Your task to perform on an android device: open sync settings in chrome Image 0: 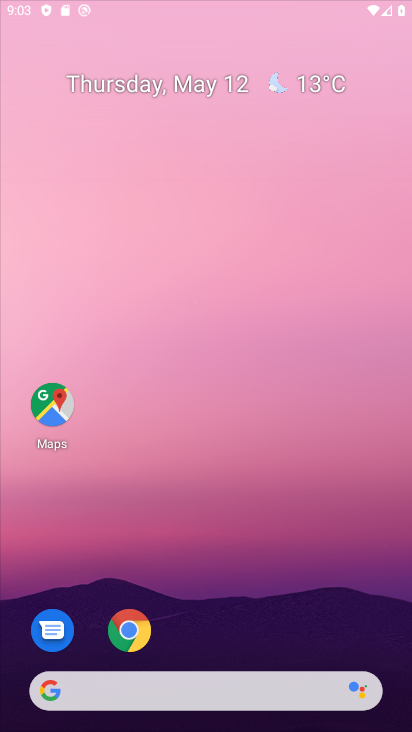
Step 0: drag from (278, 253) to (344, 79)
Your task to perform on an android device: open sync settings in chrome Image 1: 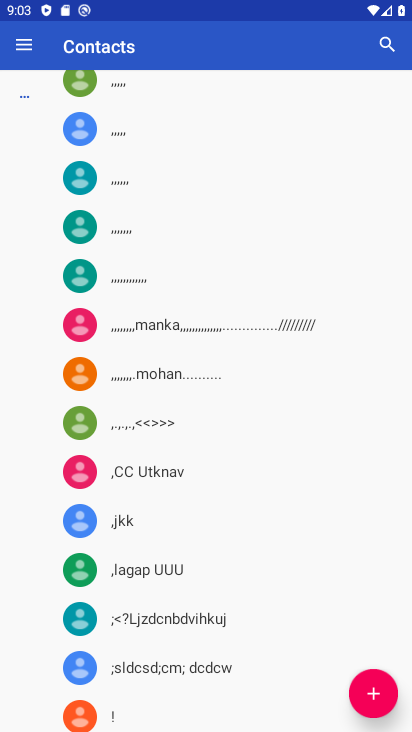
Step 1: press home button
Your task to perform on an android device: open sync settings in chrome Image 2: 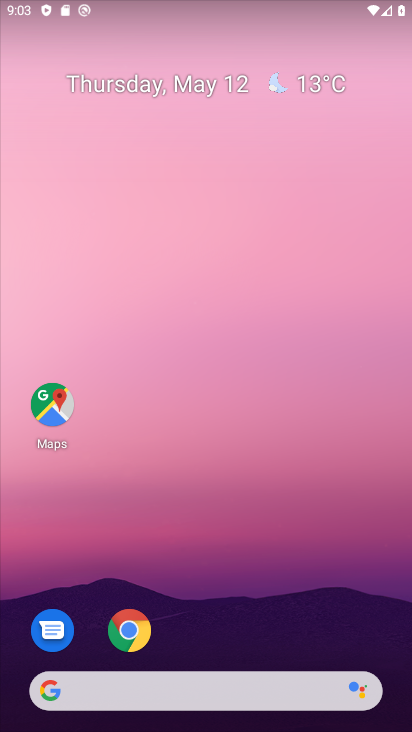
Step 2: click (121, 634)
Your task to perform on an android device: open sync settings in chrome Image 3: 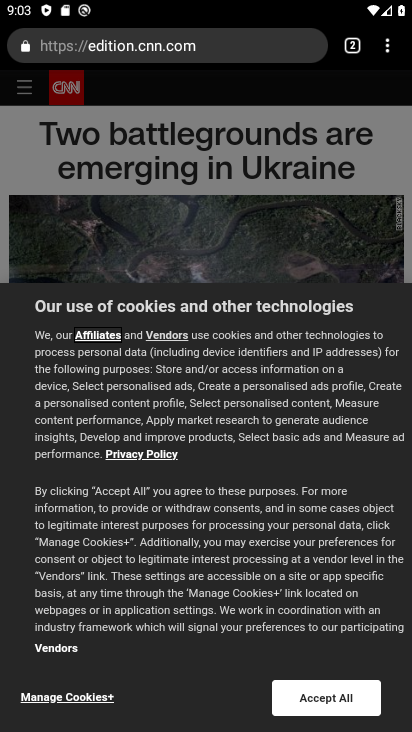
Step 3: click (390, 54)
Your task to perform on an android device: open sync settings in chrome Image 4: 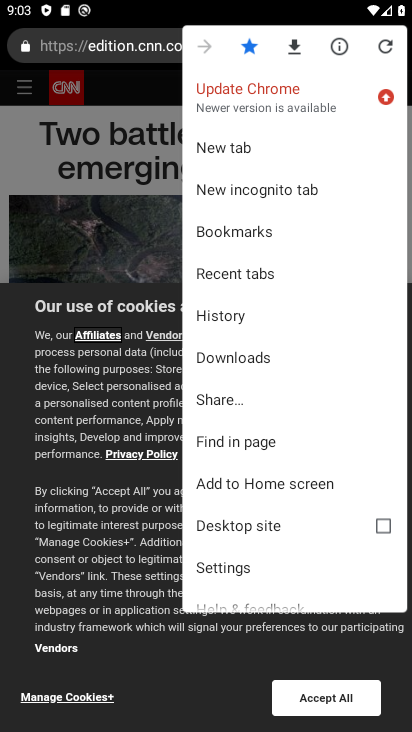
Step 4: click (249, 566)
Your task to perform on an android device: open sync settings in chrome Image 5: 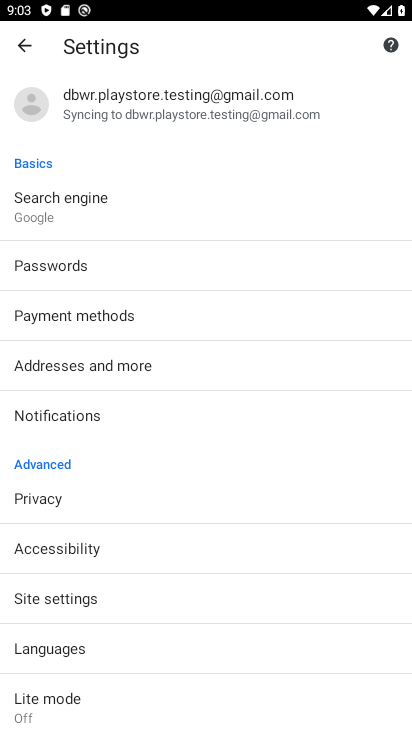
Step 5: click (186, 101)
Your task to perform on an android device: open sync settings in chrome Image 6: 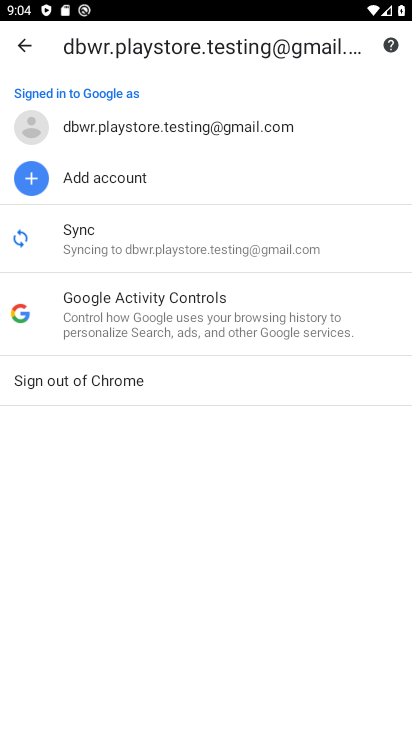
Step 6: click (181, 227)
Your task to perform on an android device: open sync settings in chrome Image 7: 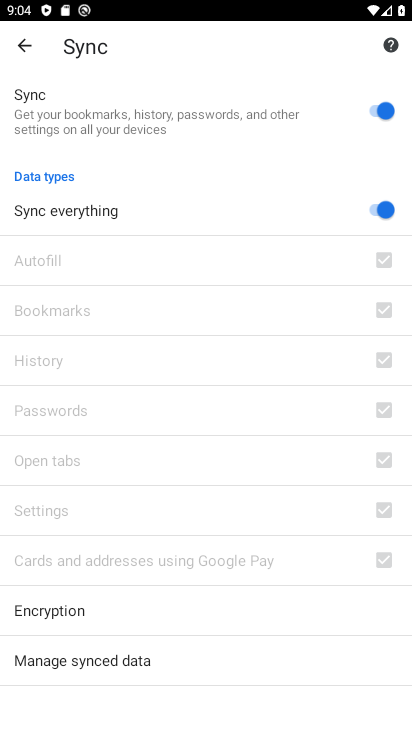
Step 7: task complete